Your task to perform on an android device: Search for "acer predator" on costco.com, select the first entry, add it to the cart, then select checkout. Image 0: 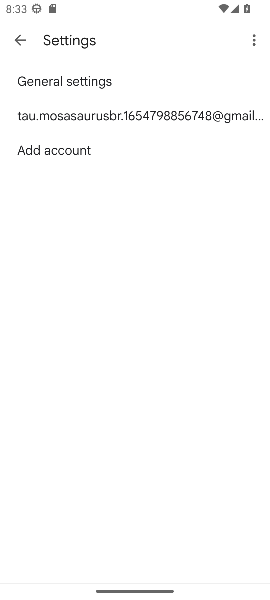
Step 0: press home button
Your task to perform on an android device: Search for "acer predator" on costco.com, select the first entry, add it to the cart, then select checkout. Image 1: 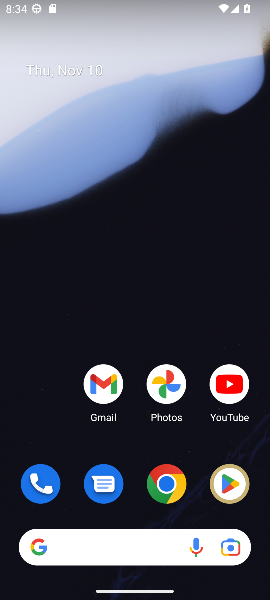
Step 1: click (163, 490)
Your task to perform on an android device: Search for "acer predator" on costco.com, select the first entry, add it to the cart, then select checkout. Image 2: 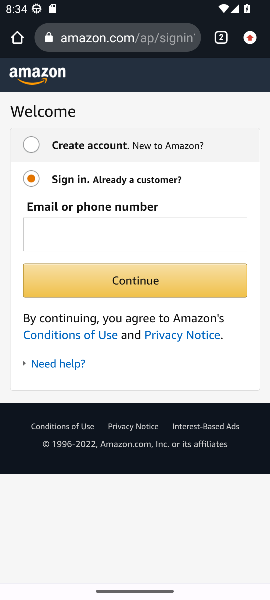
Step 2: click (149, 38)
Your task to perform on an android device: Search for "acer predator" on costco.com, select the first entry, add it to the cart, then select checkout. Image 3: 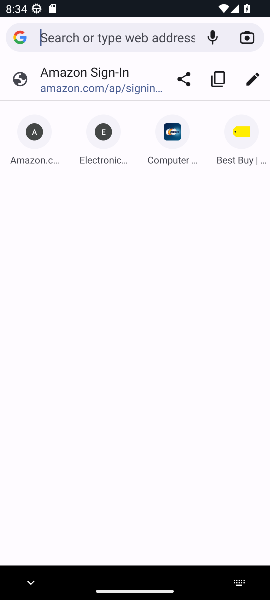
Step 3: type "costco.com"
Your task to perform on an android device: Search for "acer predator" on costco.com, select the first entry, add it to the cart, then select checkout. Image 4: 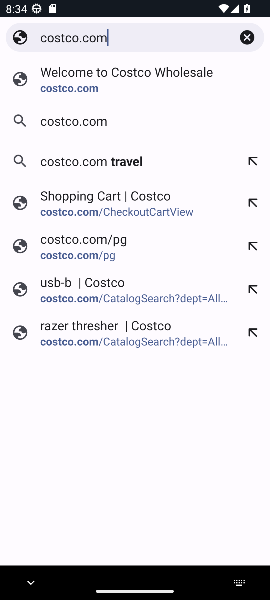
Step 4: click (77, 88)
Your task to perform on an android device: Search for "acer predator" on costco.com, select the first entry, add it to the cart, then select checkout. Image 5: 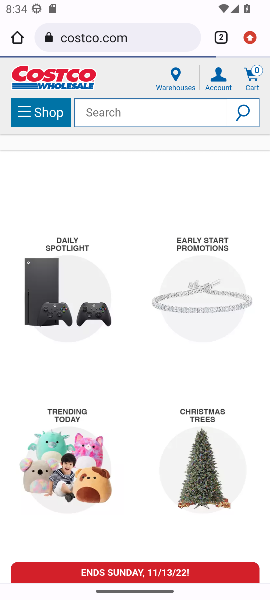
Step 5: click (91, 104)
Your task to perform on an android device: Search for "acer predator" on costco.com, select the first entry, add it to the cart, then select checkout. Image 6: 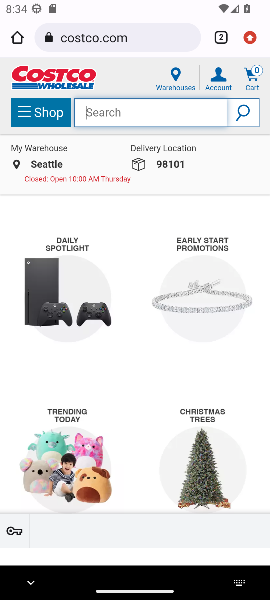
Step 6: type "acer predator"
Your task to perform on an android device: Search for "acer predator" on costco.com, select the first entry, add it to the cart, then select checkout. Image 7: 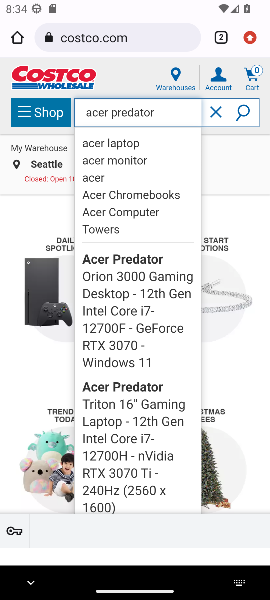
Step 7: click (244, 115)
Your task to perform on an android device: Search for "acer predator" on costco.com, select the first entry, add it to the cart, then select checkout. Image 8: 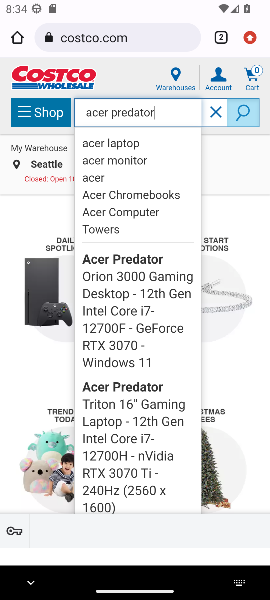
Step 8: click (244, 115)
Your task to perform on an android device: Search for "acer predator" on costco.com, select the first entry, add it to the cart, then select checkout. Image 9: 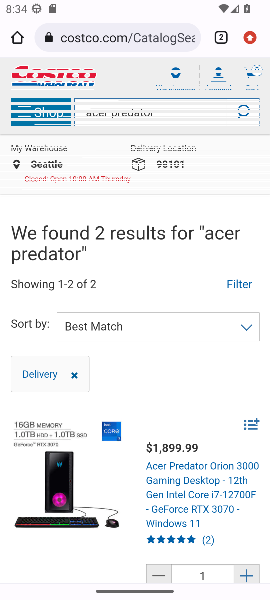
Step 9: drag from (133, 366) to (147, 201)
Your task to perform on an android device: Search for "acer predator" on costco.com, select the first entry, add it to the cart, then select checkout. Image 10: 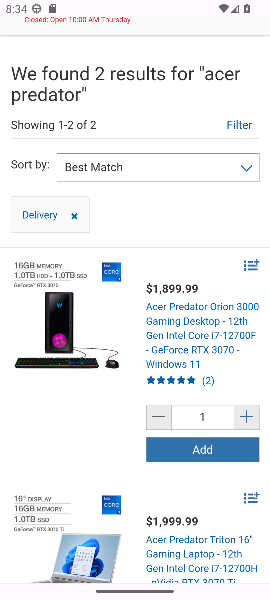
Step 10: drag from (117, 386) to (123, 320)
Your task to perform on an android device: Search for "acer predator" on costco.com, select the first entry, add it to the cart, then select checkout. Image 11: 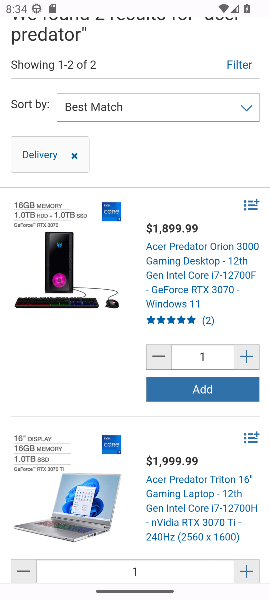
Step 11: click (202, 395)
Your task to perform on an android device: Search for "acer predator" on costco.com, select the first entry, add it to the cart, then select checkout. Image 12: 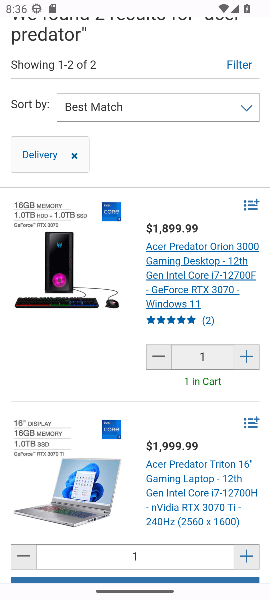
Step 12: drag from (136, 237) to (129, 438)
Your task to perform on an android device: Search for "acer predator" on costco.com, select the first entry, add it to the cart, then select checkout. Image 13: 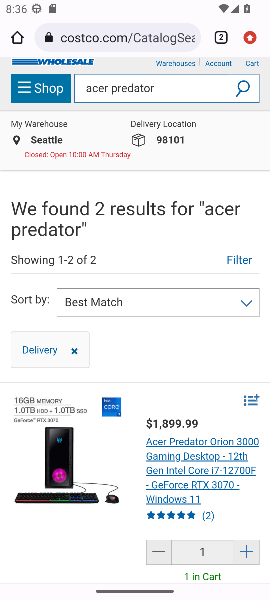
Step 13: drag from (185, 125) to (168, 283)
Your task to perform on an android device: Search for "acer predator" on costco.com, select the first entry, add it to the cart, then select checkout. Image 14: 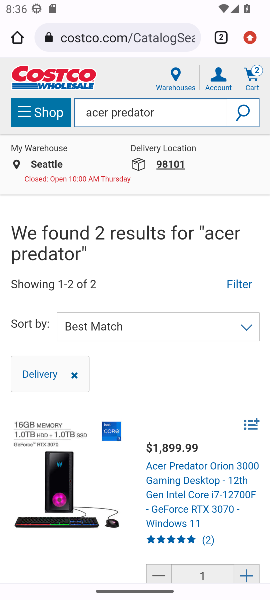
Step 14: click (253, 78)
Your task to perform on an android device: Search for "acer predator" on costco.com, select the first entry, add it to the cart, then select checkout. Image 15: 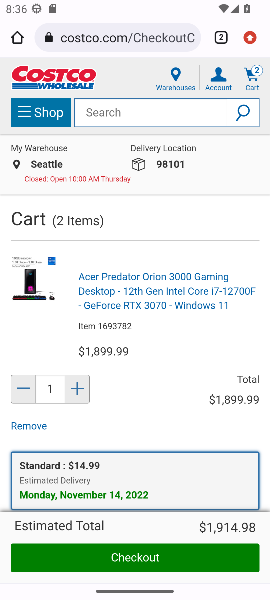
Step 15: drag from (146, 392) to (152, 346)
Your task to perform on an android device: Search for "acer predator" on costco.com, select the first entry, add it to the cart, then select checkout. Image 16: 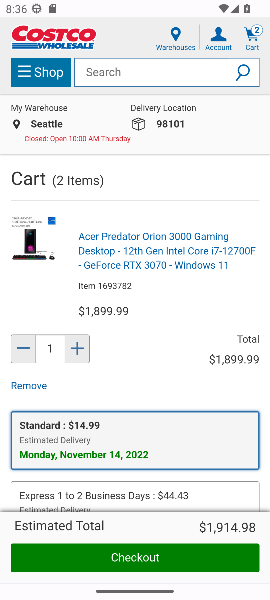
Step 16: click (135, 555)
Your task to perform on an android device: Search for "acer predator" on costco.com, select the first entry, add it to the cart, then select checkout. Image 17: 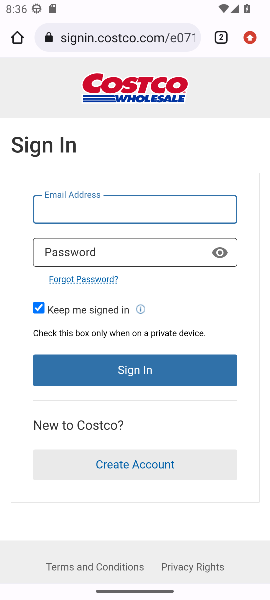
Step 17: task complete